Your task to perform on an android device: turn on wifi Image 0: 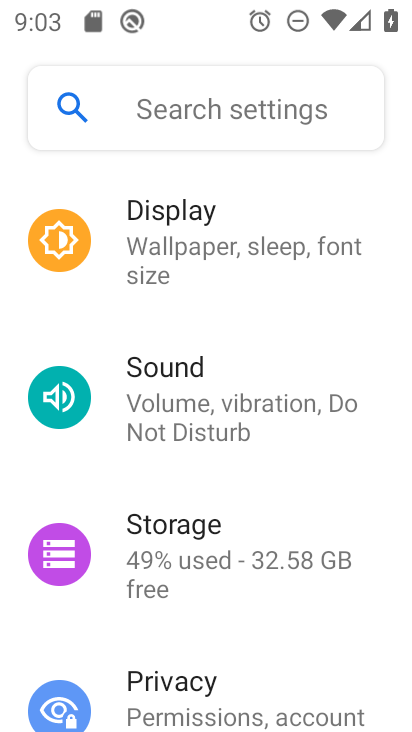
Step 0: press home button
Your task to perform on an android device: turn on wifi Image 1: 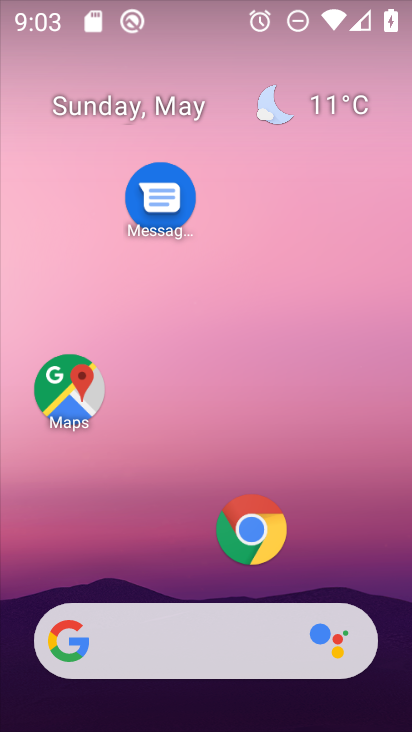
Step 1: drag from (199, 583) to (243, 95)
Your task to perform on an android device: turn on wifi Image 2: 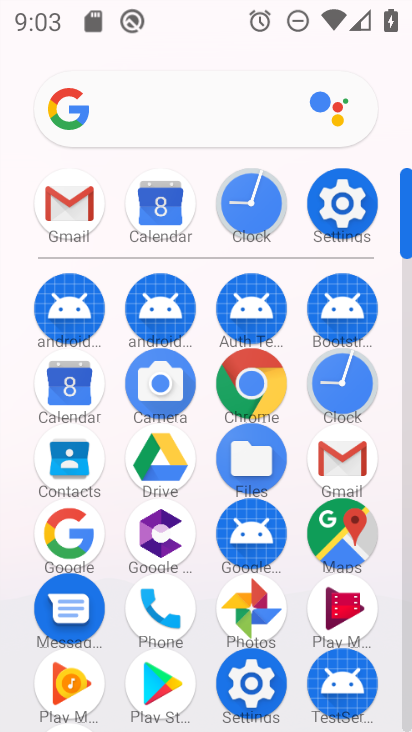
Step 2: click (343, 196)
Your task to perform on an android device: turn on wifi Image 3: 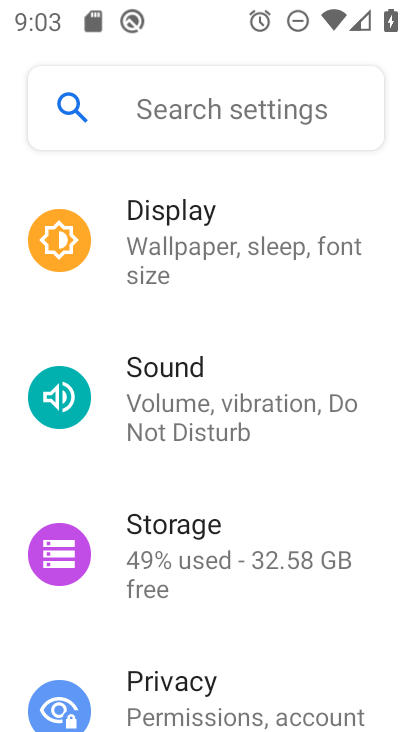
Step 3: drag from (215, 202) to (217, 691)
Your task to perform on an android device: turn on wifi Image 4: 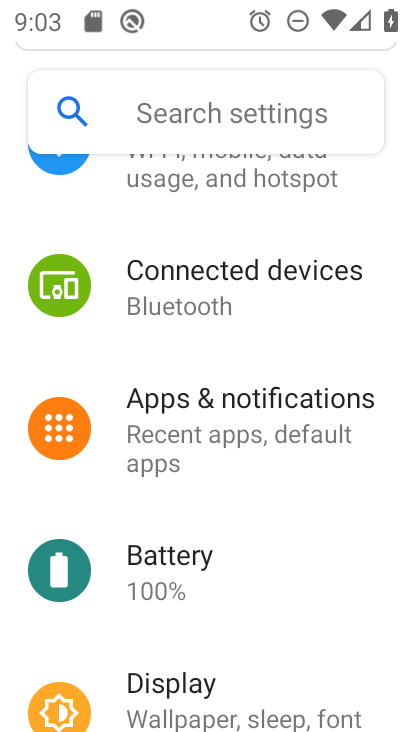
Step 4: click (216, 172)
Your task to perform on an android device: turn on wifi Image 5: 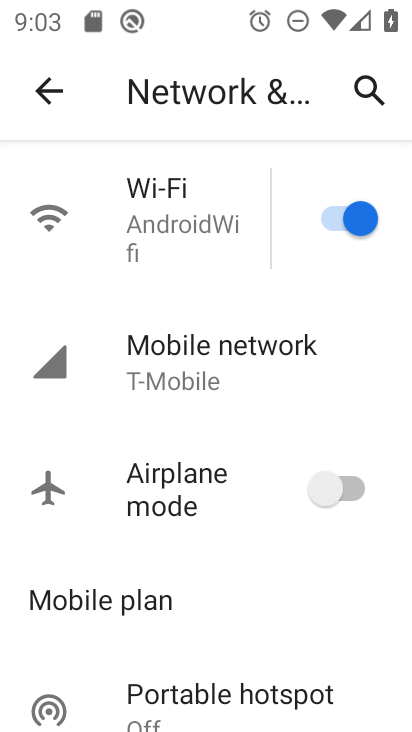
Step 5: click (172, 248)
Your task to perform on an android device: turn on wifi Image 6: 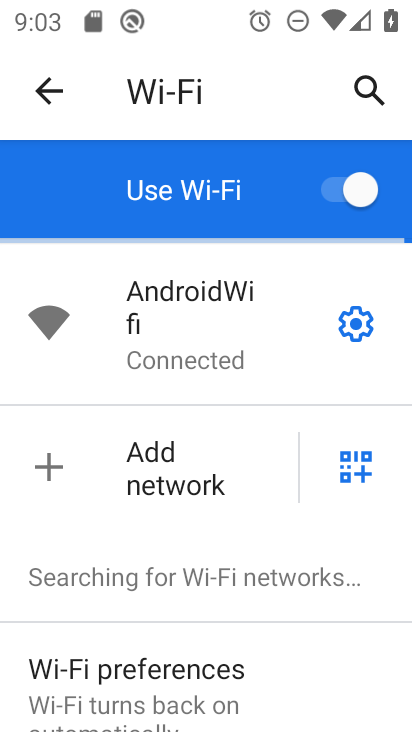
Step 6: task complete